Your task to perform on an android device: turn notification dots on Image 0: 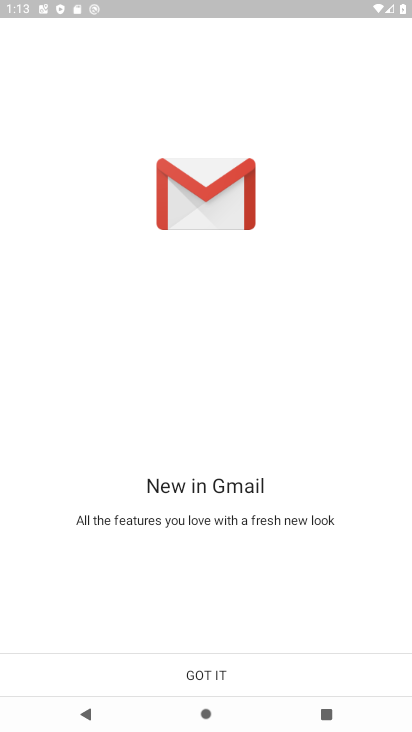
Step 0: drag from (191, 635) to (409, 565)
Your task to perform on an android device: turn notification dots on Image 1: 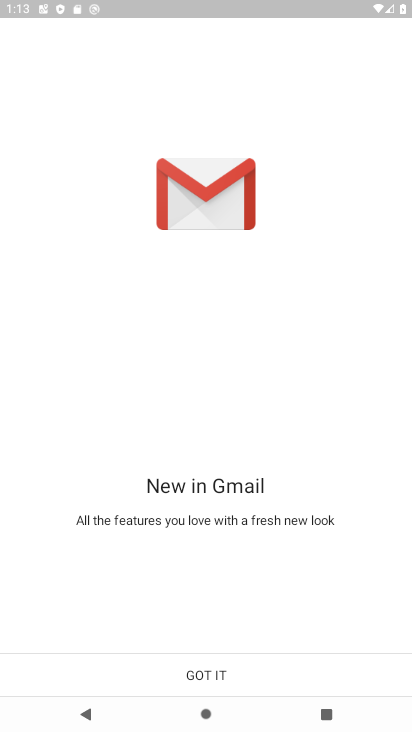
Step 1: press home button
Your task to perform on an android device: turn notification dots on Image 2: 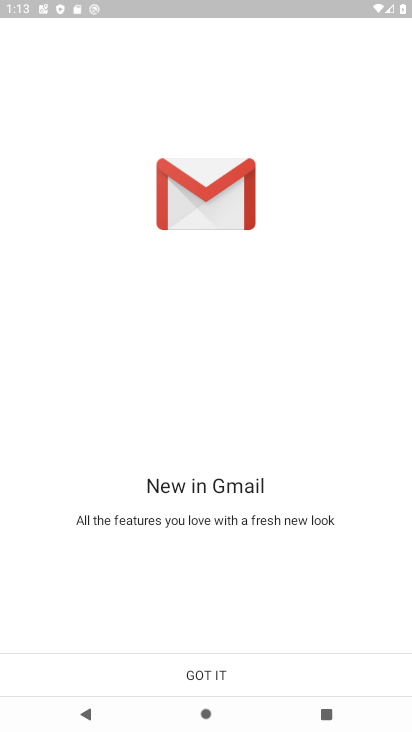
Step 2: click (396, 437)
Your task to perform on an android device: turn notification dots on Image 3: 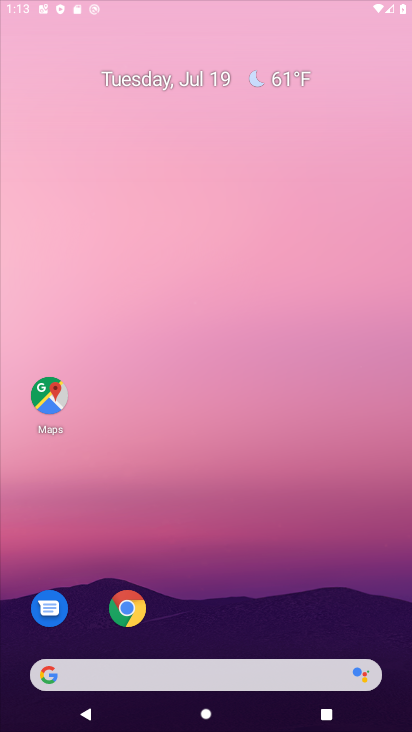
Step 3: drag from (245, 654) to (248, 180)
Your task to perform on an android device: turn notification dots on Image 4: 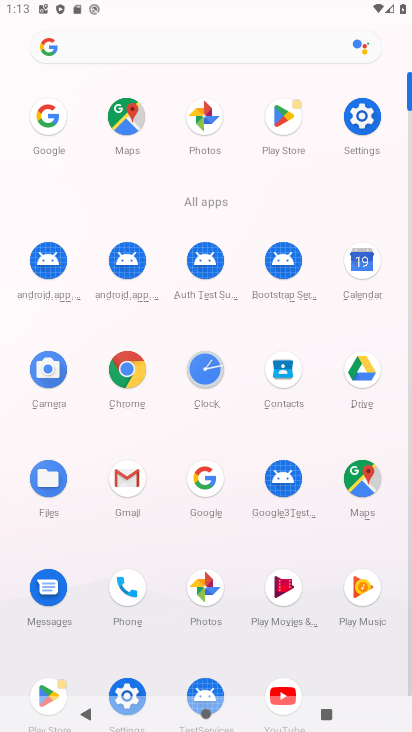
Step 4: click (359, 114)
Your task to perform on an android device: turn notification dots on Image 5: 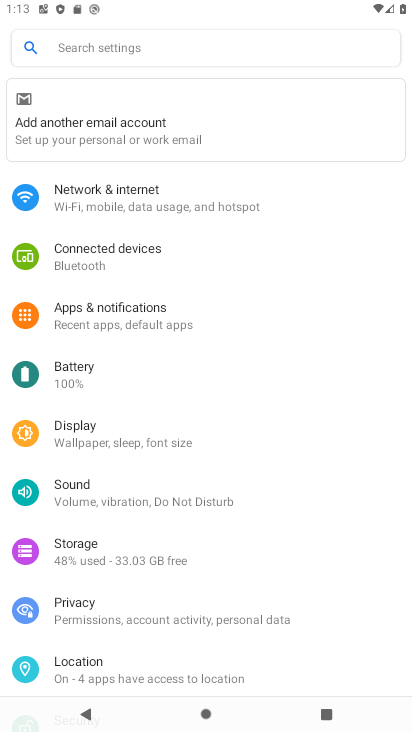
Step 5: click (111, 313)
Your task to perform on an android device: turn notification dots on Image 6: 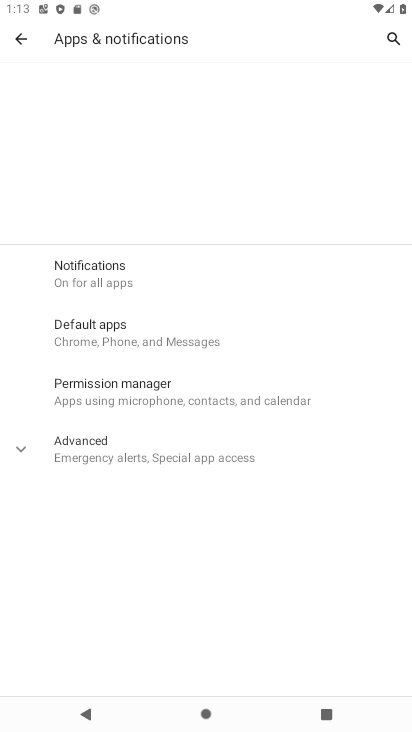
Step 6: click (125, 280)
Your task to perform on an android device: turn notification dots on Image 7: 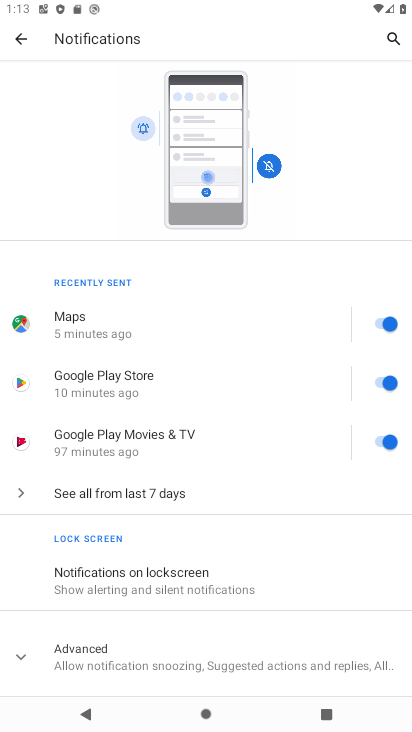
Step 7: drag from (150, 638) to (175, 262)
Your task to perform on an android device: turn notification dots on Image 8: 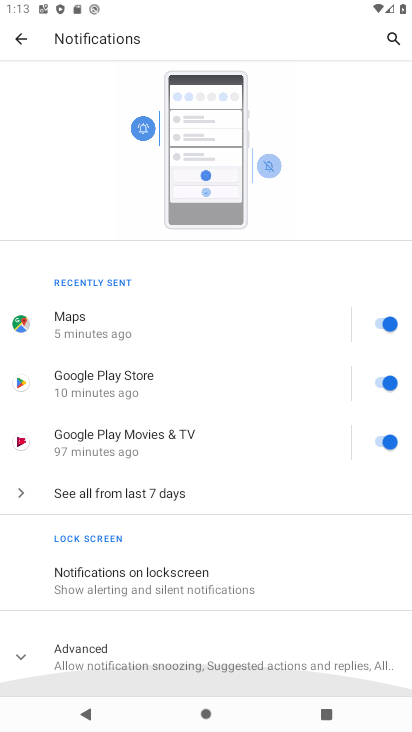
Step 8: click (114, 649)
Your task to perform on an android device: turn notification dots on Image 9: 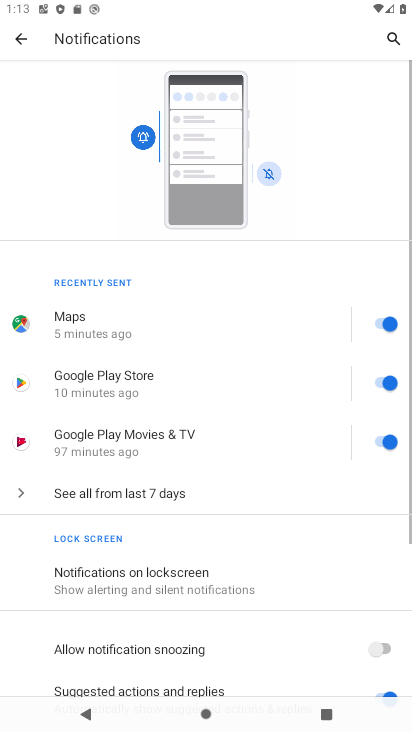
Step 9: task complete